Your task to perform on an android device: Check the settings for the Instagram app Image 0: 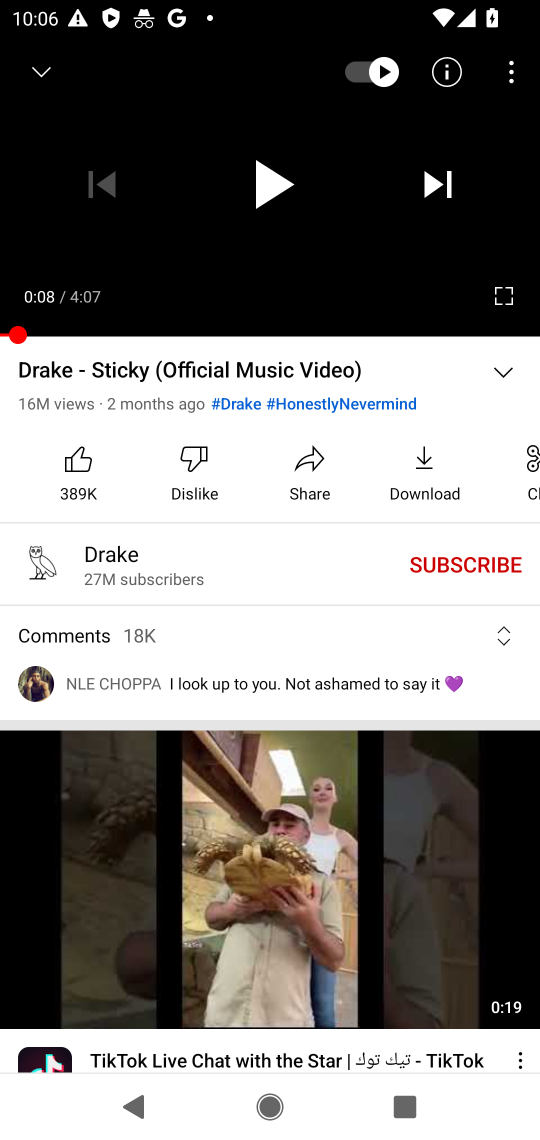
Step 0: press home button
Your task to perform on an android device: Check the settings for the Instagram app Image 1: 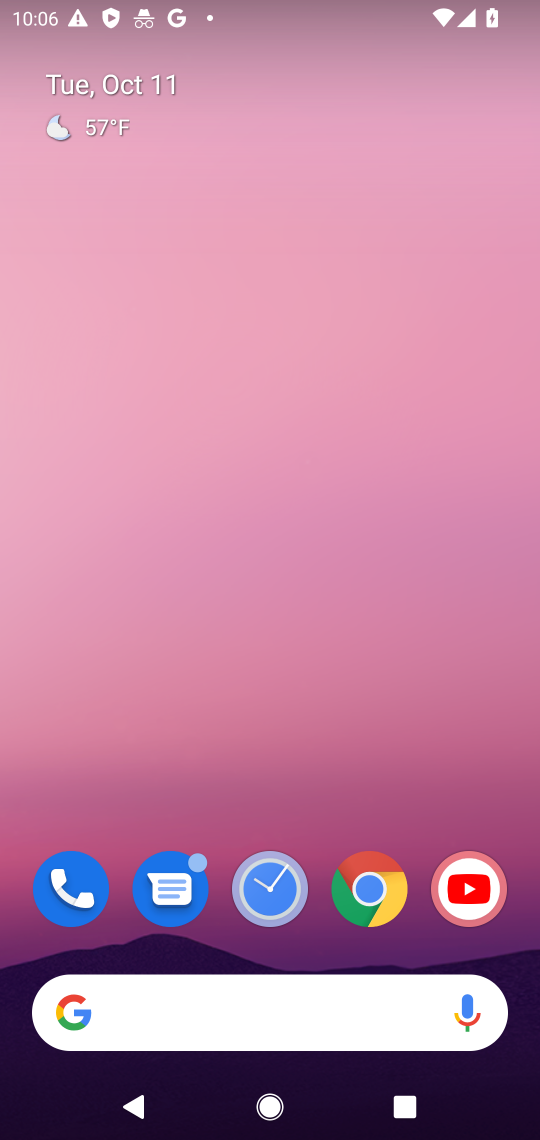
Step 1: task complete